Your task to perform on an android device: add a contact in the contacts app Image 0: 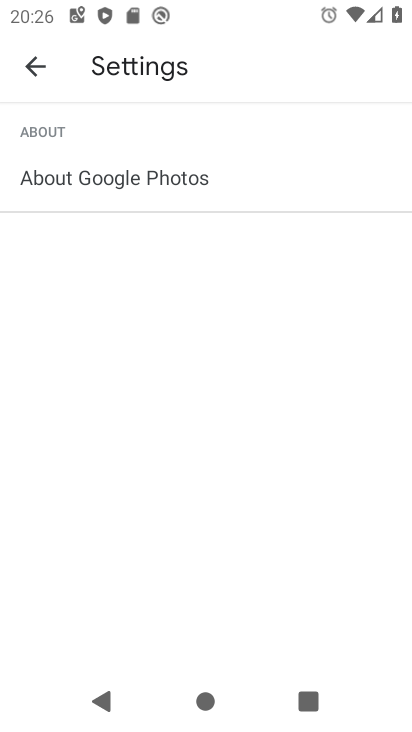
Step 0: press home button
Your task to perform on an android device: add a contact in the contacts app Image 1: 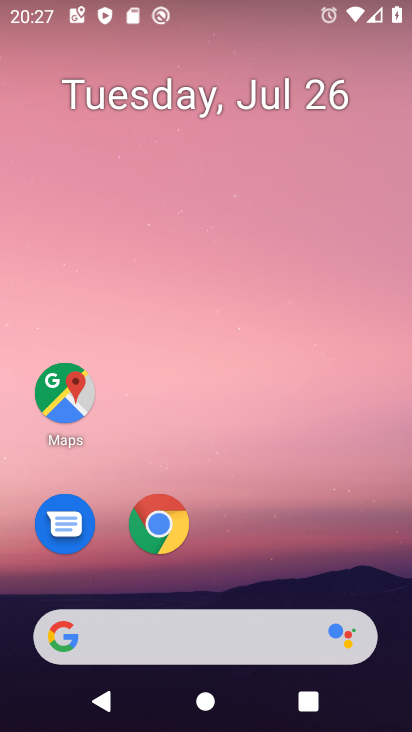
Step 1: drag from (320, 543) to (315, 1)
Your task to perform on an android device: add a contact in the contacts app Image 2: 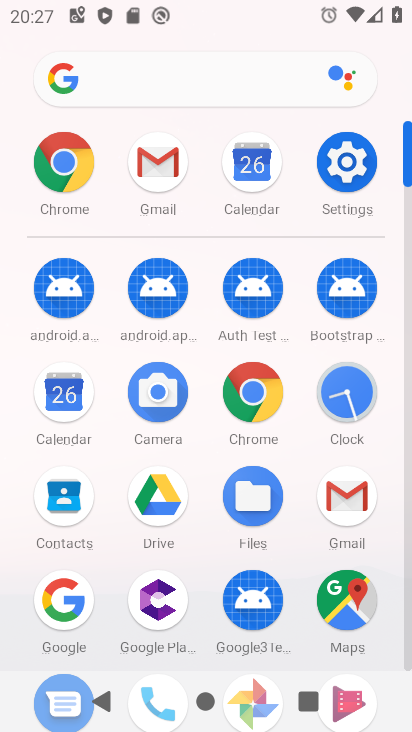
Step 2: click (70, 499)
Your task to perform on an android device: add a contact in the contacts app Image 3: 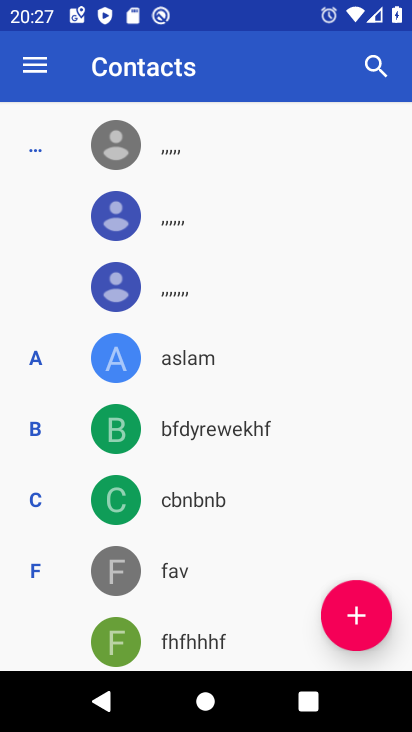
Step 3: click (358, 618)
Your task to perform on an android device: add a contact in the contacts app Image 4: 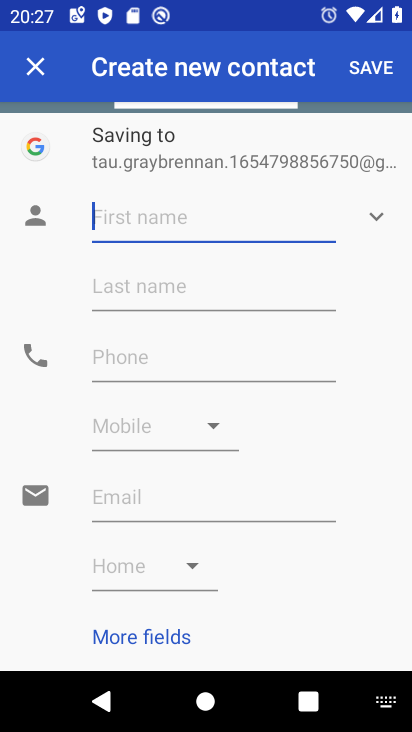
Step 4: type "Chiranjeevi Hanuman"
Your task to perform on an android device: add a contact in the contacts app Image 5: 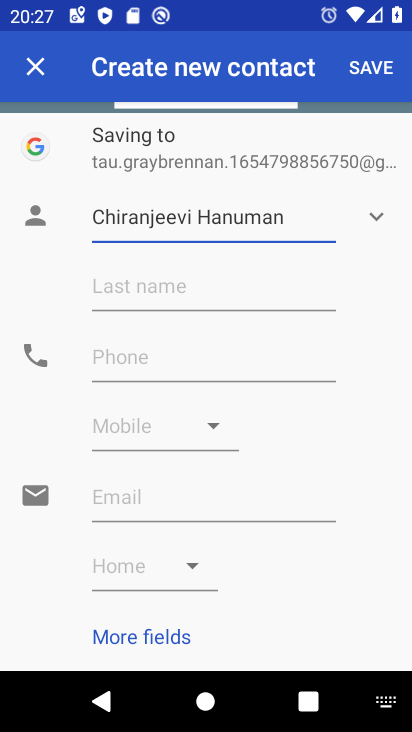
Step 5: click (203, 359)
Your task to perform on an android device: add a contact in the contacts app Image 6: 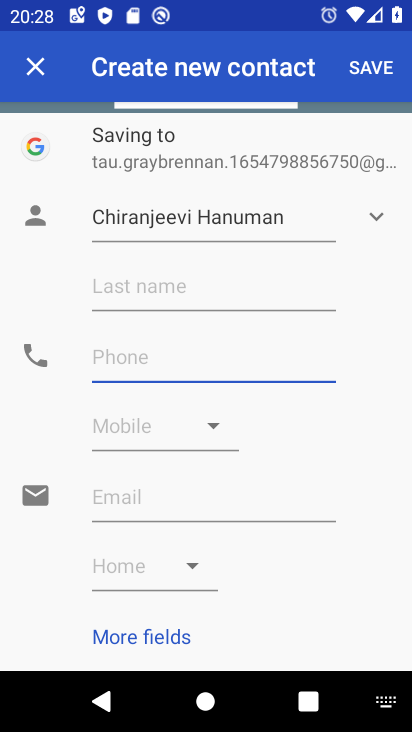
Step 6: type "+919999000007"
Your task to perform on an android device: add a contact in the contacts app Image 7: 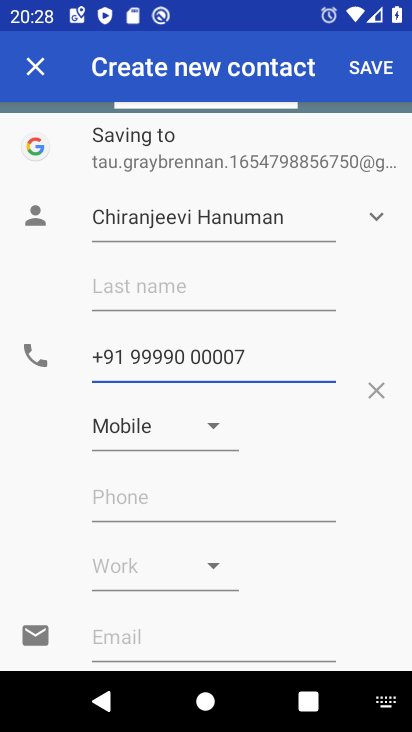
Step 7: click (367, 66)
Your task to perform on an android device: add a contact in the contacts app Image 8: 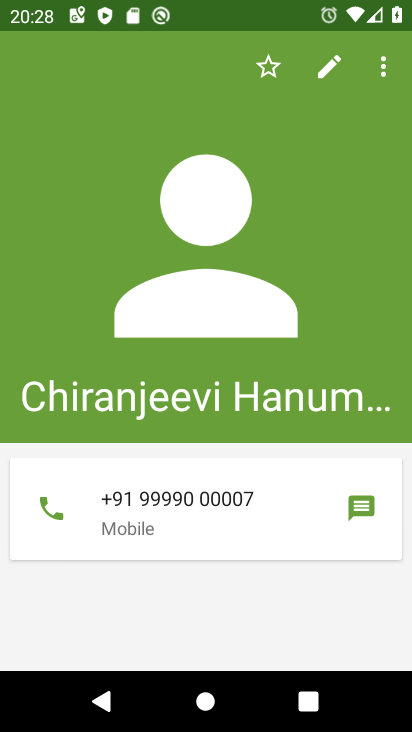
Step 8: task complete